Your task to perform on an android device: Go to Google Image 0: 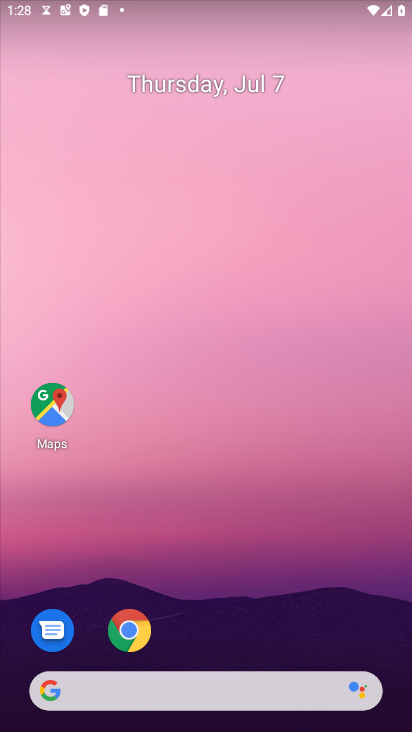
Step 0: drag from (257, 611) to (230, 123)
Your task to perform on an android device: Go to Google Image 1: 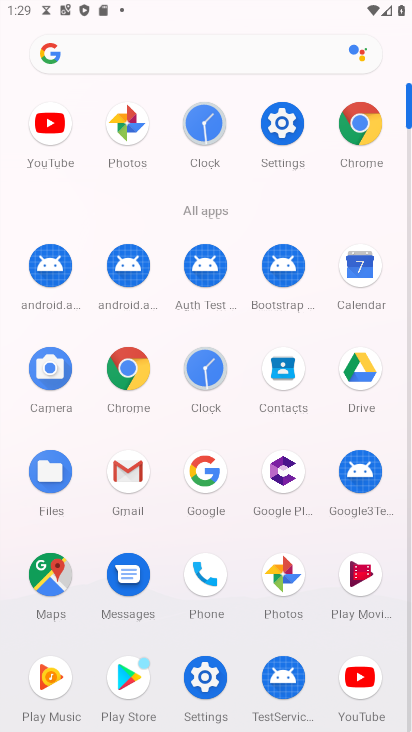
Step 1: click (365, 131)
Your task to perform on an android device: Go to Google Image 2: 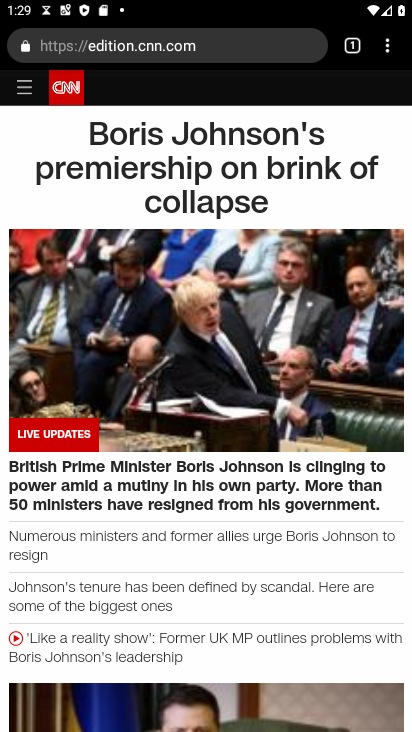
Step 2: task complete